Your task to perform on an android device: visit the assistant section in the google photos Image 0: 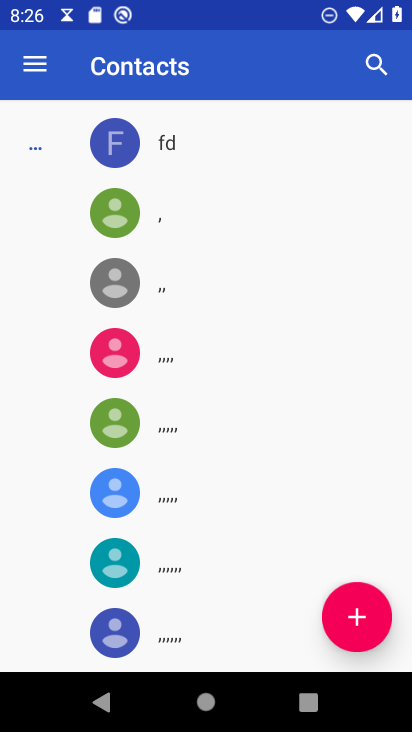
Step 0: press home button
Your task to perform on an android device: visit the assistant section in the google photos Image 1: 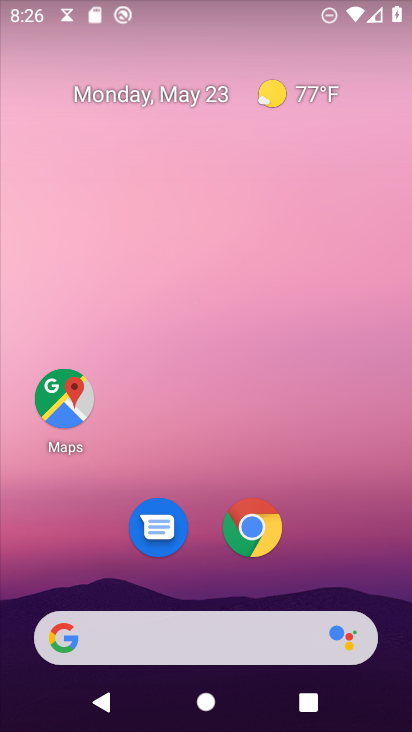
Step 1: drag from (253, 669) to (250, 121)
Your task to perform on an android device: visit the assistant section in the google photos Image 2: 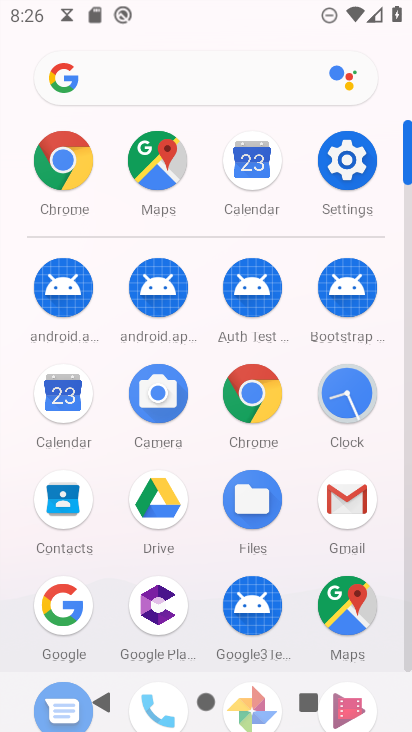
Step 2: drag from (210, 565) to (206, 352)
Your task to perform on an android device: visit the assistant section in the google photos Image 3: 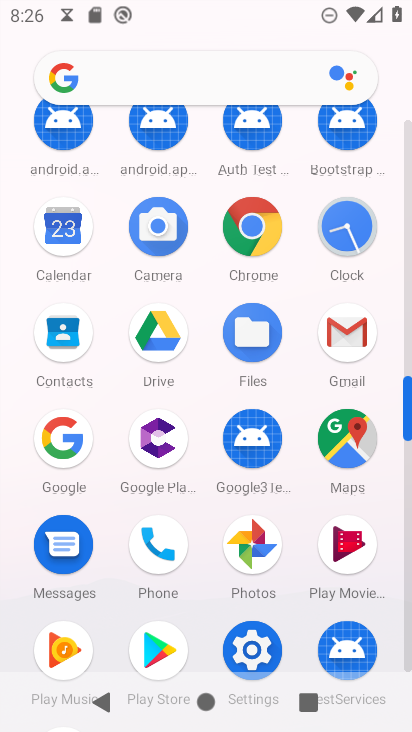
Step 3: click (244, 539)
Your task to perform on an android device: visit the assistant section in the google photos Image 4: 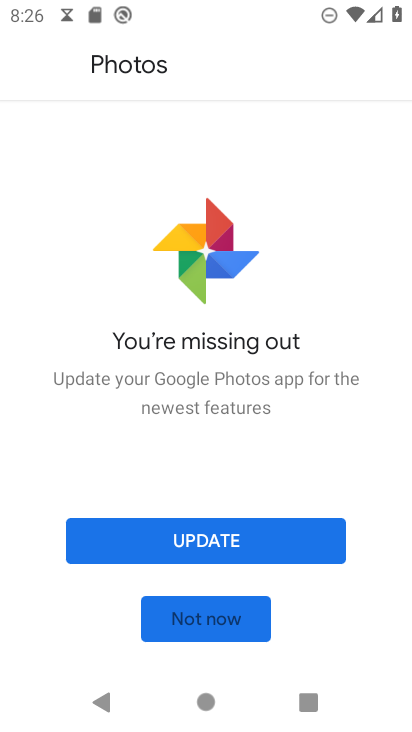
Step 4: click (231, 545)
Your task to perform on an android device: visit the assistant section in the google photos Image 5: 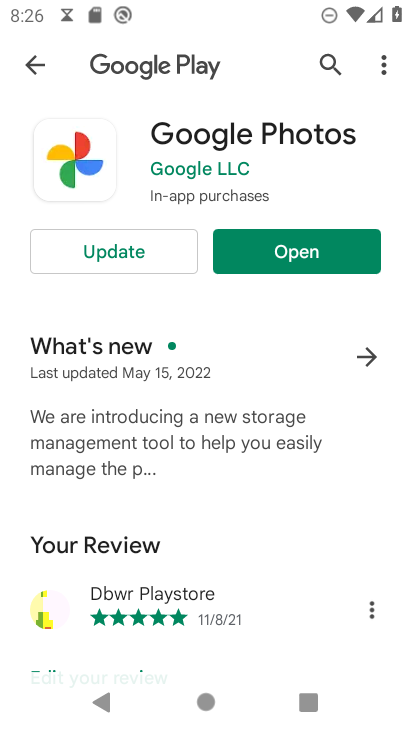
Step 5: click (333, 262)
Your task to perform on an android device: visit the assistant section in the google photos Image 6: 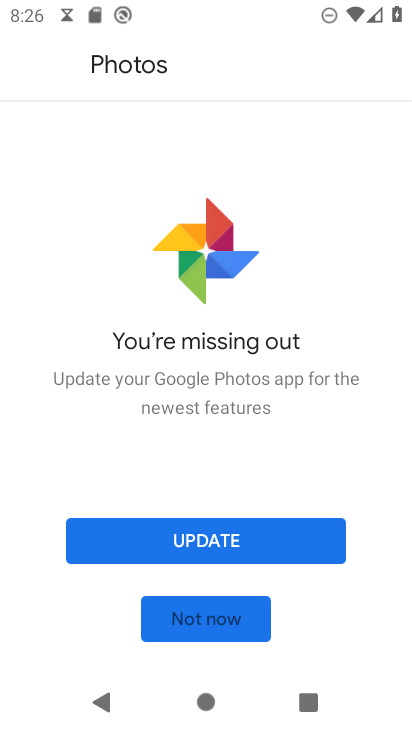
Step 6: click (234, 640)
Your task to perform on an android device: visit the assistant section in the google photos Image 7: 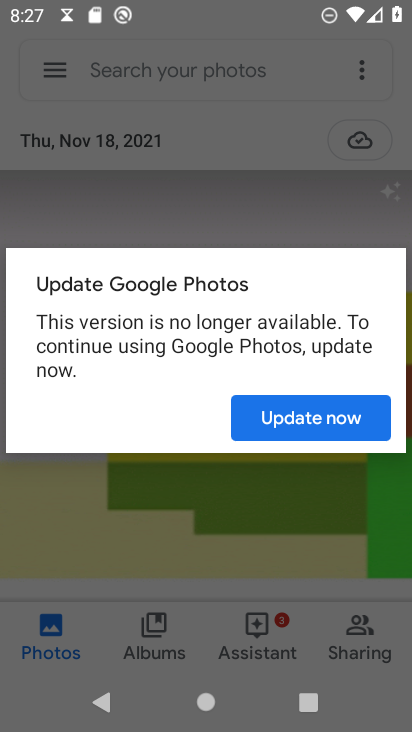
Step 7: click (323, 410)
Your task to perform on an android device: visit the assistant section in the google photos Image 8: 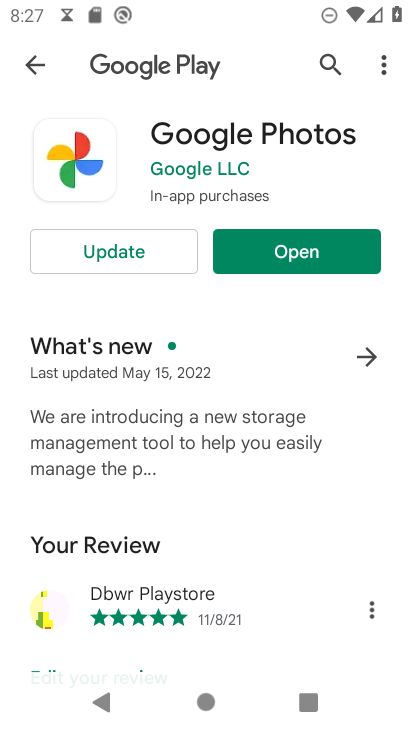
Step 8: click (305, 257)
Your task to perform on an android device: visit the assistant section in the google photos Image 9: 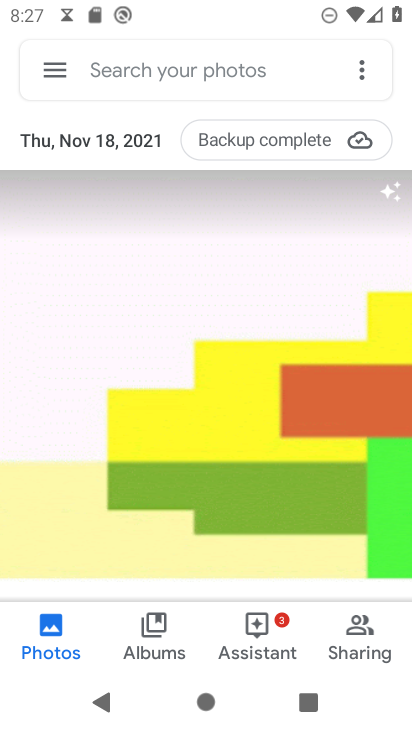
Step 9: click (248, 664)
Your task to perform on an android device: visit the assistant section in the google photos Image 10: 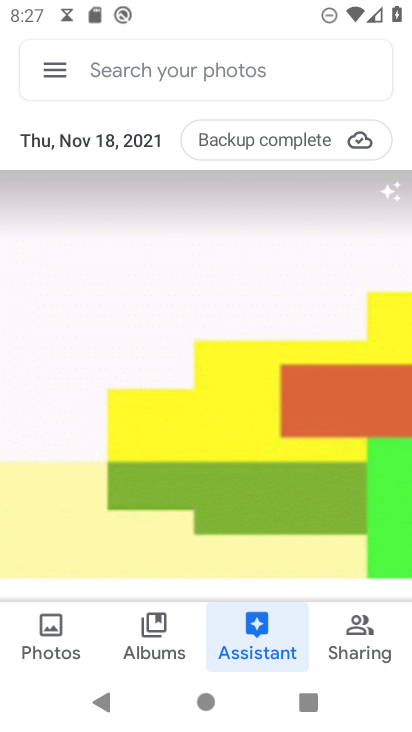
Step 10: click (260, 650)
Your task to perform on an android device: visit the assistant section in the google photos Image 11: 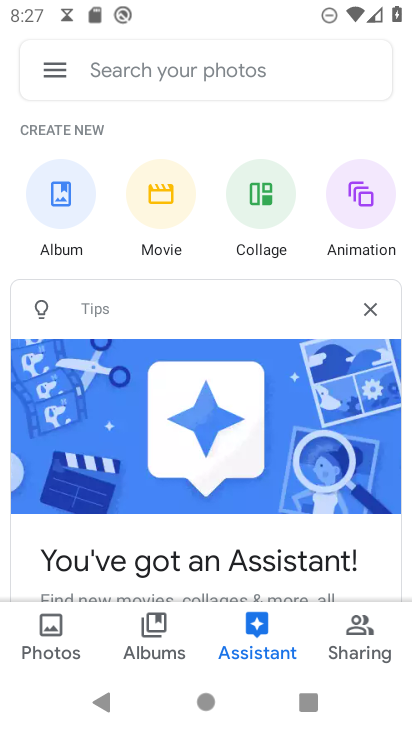
Step 11: task complete